Your task to perform on an android device: open app "Microsoft Outlook" (install if not already installed) and go to login screen Image 0: 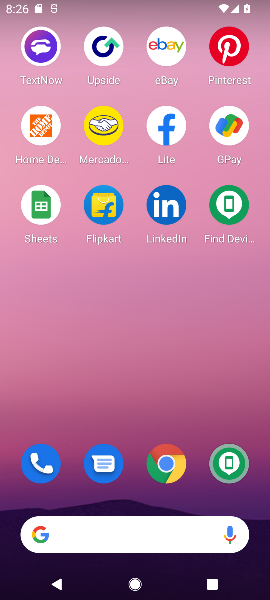
Step 0: drag from (122, 220) to (135, 148)
Your task to perform on an android device: open app "Microsoft Outlook" (install if not already installed) and go to login screen Image 1: 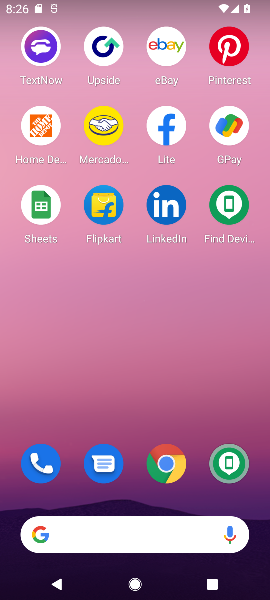
Step 1: drag from (127, 491) to (128, 96)
Your task to perform on an android device: open app "Microsoft Outlook" (install if not already installed) and go to login screen Image 2: 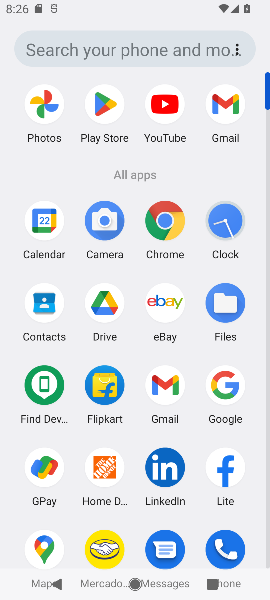
Step 2: click (104, 108)
Your task to perform on an android device: open app "Microsoft Outlook" (install if not already installed) and go to login screen Image 3: 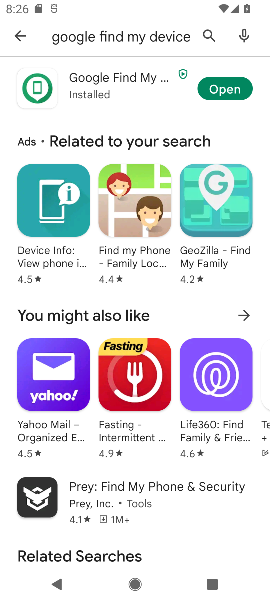
Step 3: click (16, 33)
Your task to perform on an android device: open app "Microsoft Outlook" (install if not already installed) and go to login screen Image 4: 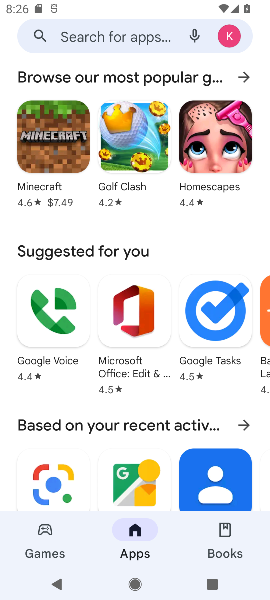
Step 4: click (104, 29)
Your task to perform on an android device: open app "Microsoft Outlook" (install if not already installed) and go to login screen Image 5: 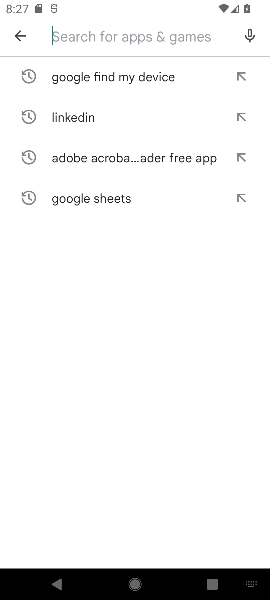
Step 5: type "Microsoft Outlook"
Your task to perform on an android device: open app "Microsoft Outlook" (install if not already installed) and go to login screen Image 6: 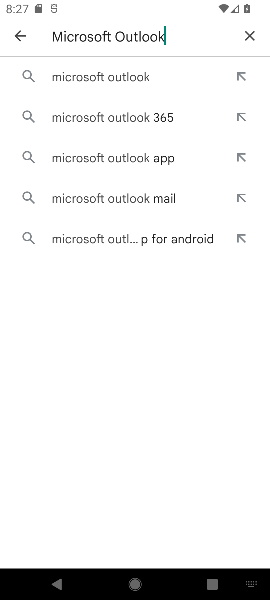
Step 6: click (134, 74)
Your task to perform on an android device: open app "Microsoft Outlook" (install if not already installed) and go to login screen Image 7: 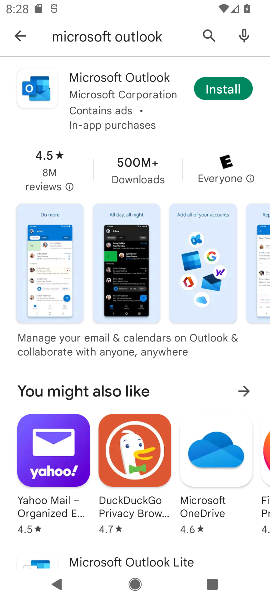
Step 7: click (225, 90)
Your task to perform on an android device: open app "Microsoft Outlook" (install if not already installed) and go to login screen Image 8: 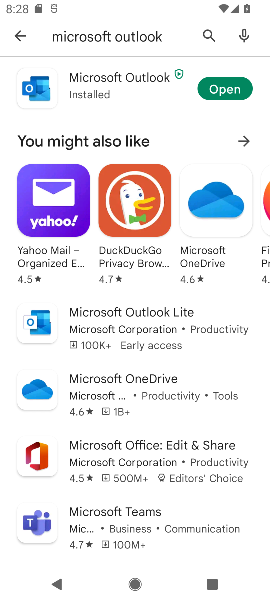
Step 8: click (222, 87)
Your task to perform on an android device: open app "Microsoft Outlook" (install if not already installed) and go to login screen Image 9: 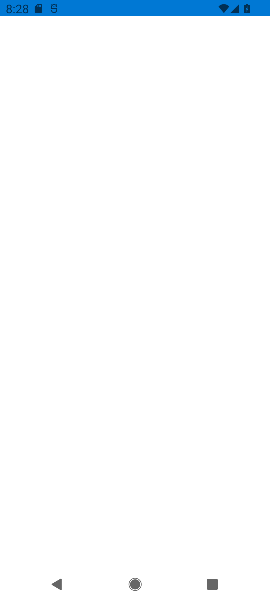
Step 9: task complete